Your task to perform on an android device: add a label to a message in the gmail app Image 0: 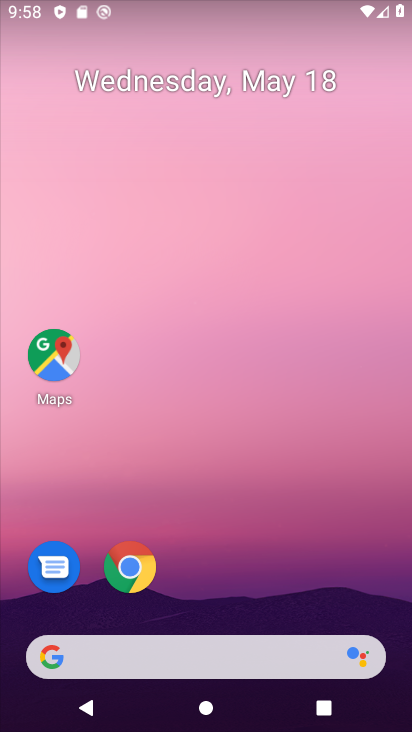
Step 0: drag from (310, 536) to (273, 96)
Your task to perform on an android device: add a label to a message in the gmail app Image 1: 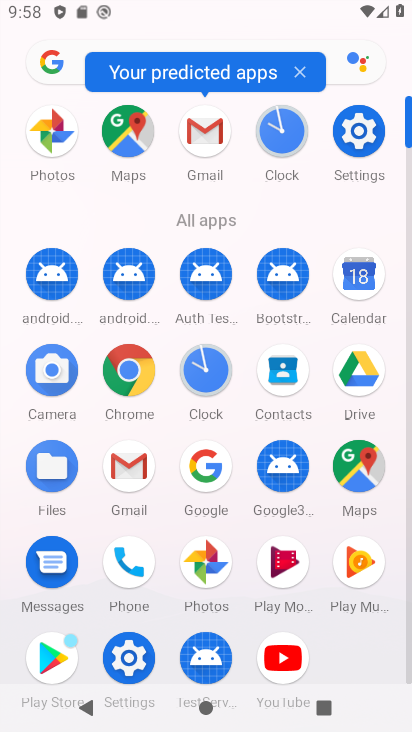
Step 1: click (127, 477)
Your task to perform on an android device: add a label to a message in the gmail app Image 2: 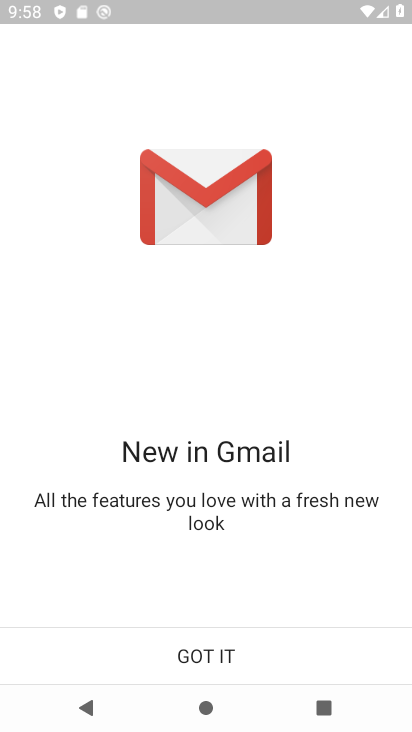
Step 2: click (197, 668)
Your task to perform on an android device: add a label to a message in the gmail app Image 3: 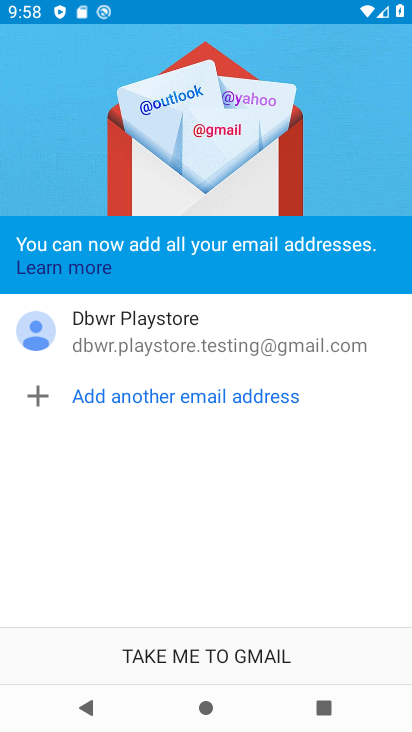
Step 3: click (199, 658)
Your task to perform on an android device: add a label to a message in the gmail app Image 4: 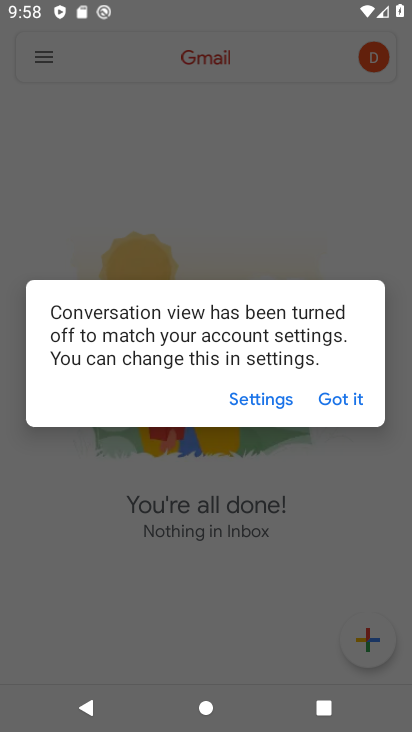
Step 4: click (345, 394)
Your task to perform on an android device: add a label to a message in the gmail app Image 5: 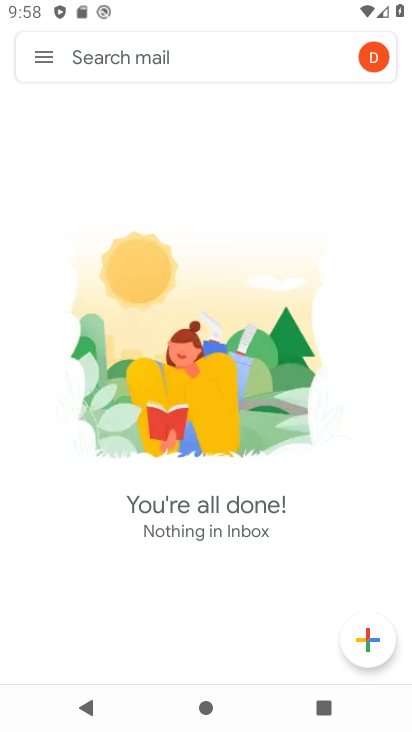
Step 5: task complete